Your task to perform on an android device: Do I have any events tomorrow? Image 0: 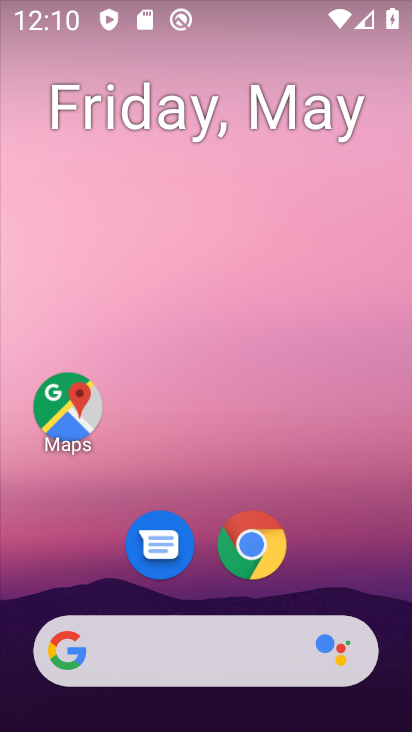
Step 0: drag from (316, 568) to (333, 40)
Your task to perform on an android device: Do I have any events tomorrow? Image 1: 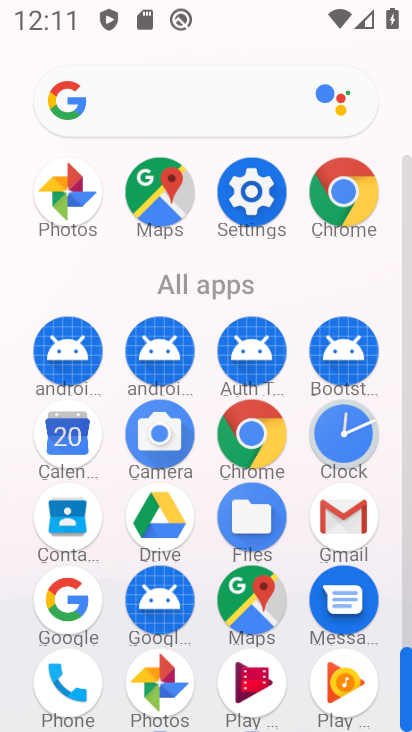
Step 1: click (249, 190)
Your task to perform on an android device: Do I have any events tomorrow? Image 2: 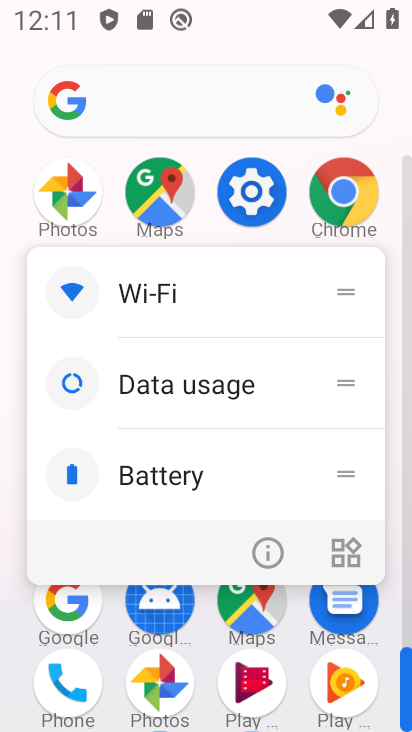
Step 2: click (251, 198)
Your task to perform on an android device: Do I have any events tomorrow? Image 3: 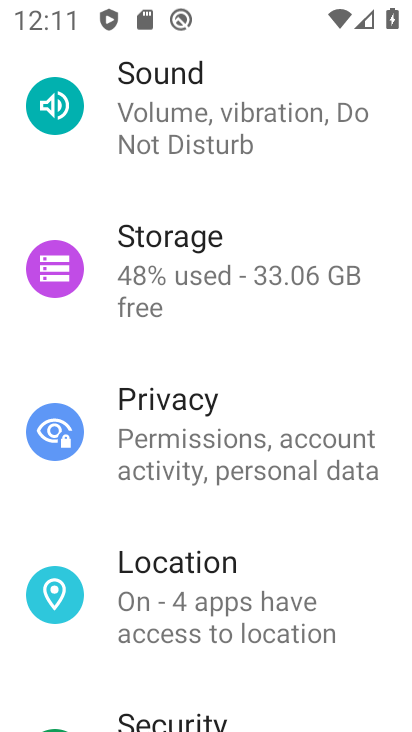
Step 3: drag from (253, 167) to (208, 527)
Your task to perform on an android device: Do I have any events tomorrow? Image 4: 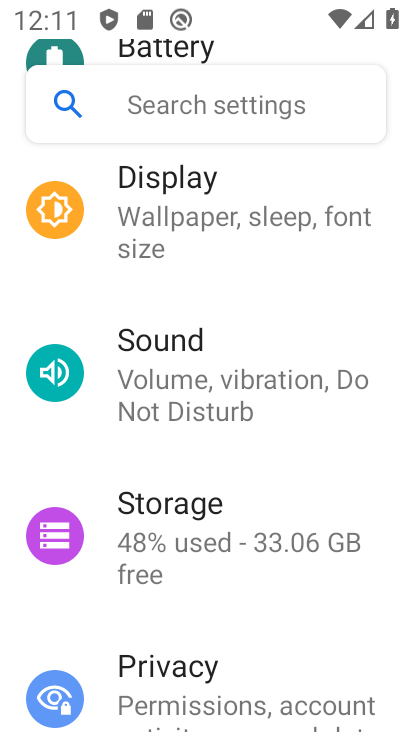
Step 4: press back button
Your task to perform on an android device: Do I have any events tomorrow? Image 5: 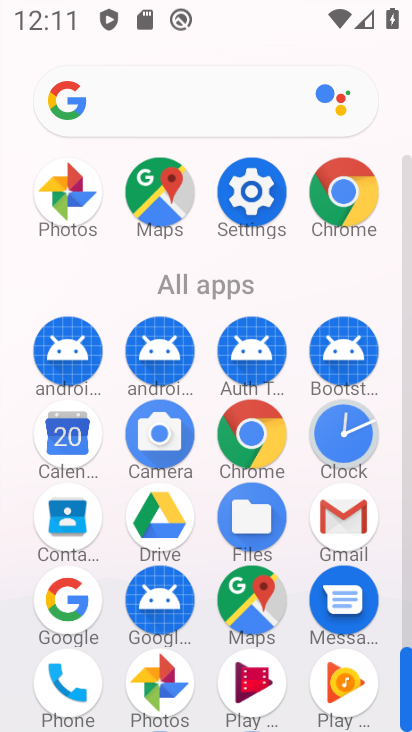
Step 5: click (77, 439)
Your task to perform on an android device: Do I have any events tomorrow? Image 6: 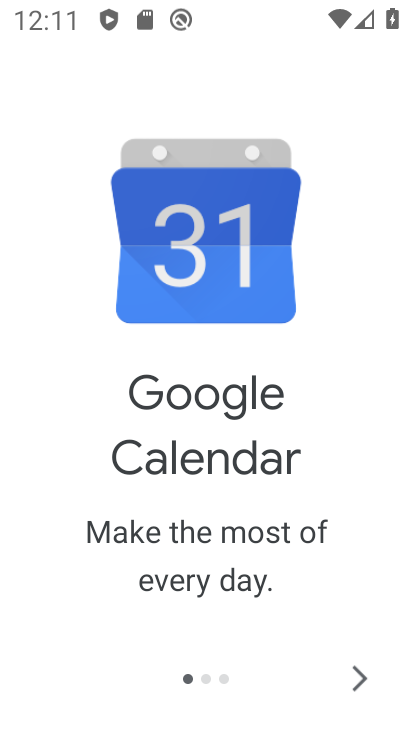
Step 6: click (359, 688)
Your task to perform on an android device: Do I have any events tomorrow? Image 7: 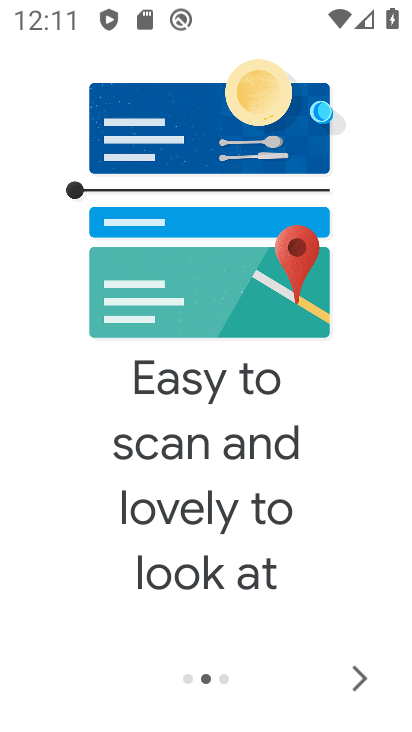
Step 7: click (359, 686)
Your task to perform on an android device: Do I have any events tomorrow? Image 8: 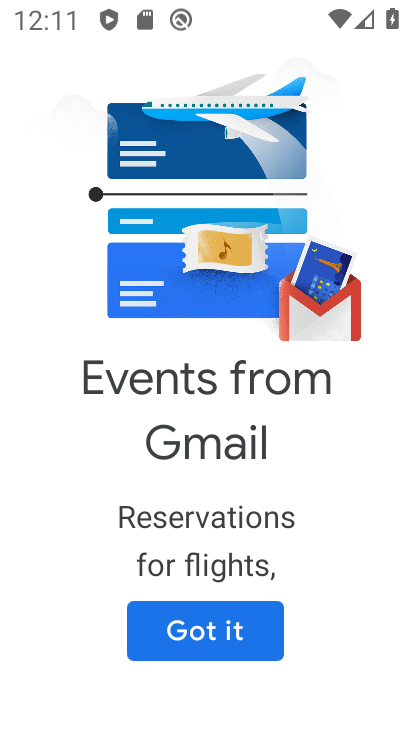
Step 8: click (158, 645)
Your task to perform on an android device: Do I have any events tomorrow? Image 9: 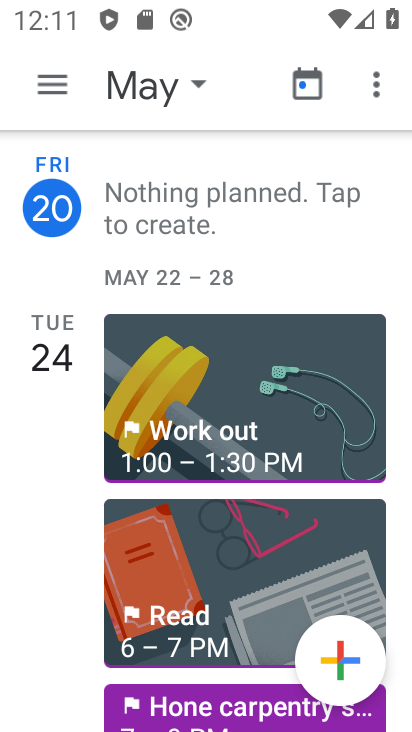
Step 9: click (177, 90)
Your task to perform on an android device: Do I have any events tomorrow? Image 10: 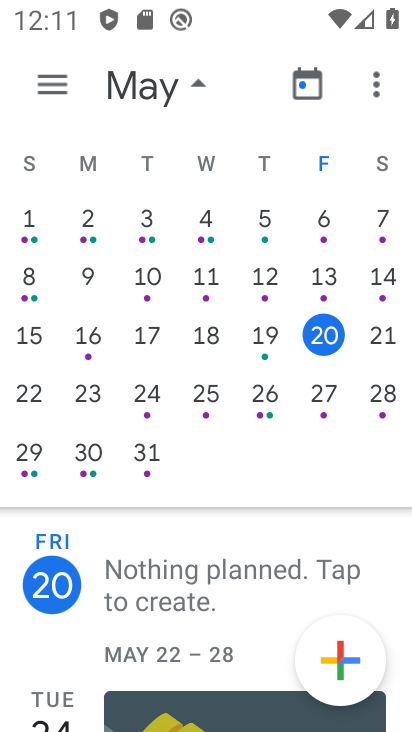
Step 10: task complete